Your task to perform on an android device: set an alarm Image 0: 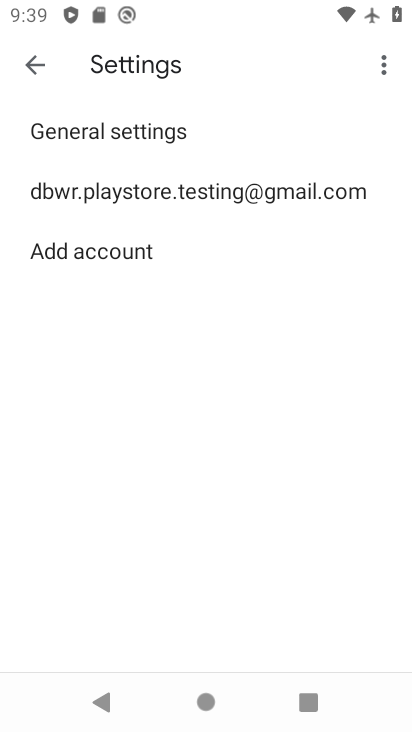
Step 0: press home button
Your task to perform on an android device: set an alarm Image 1: 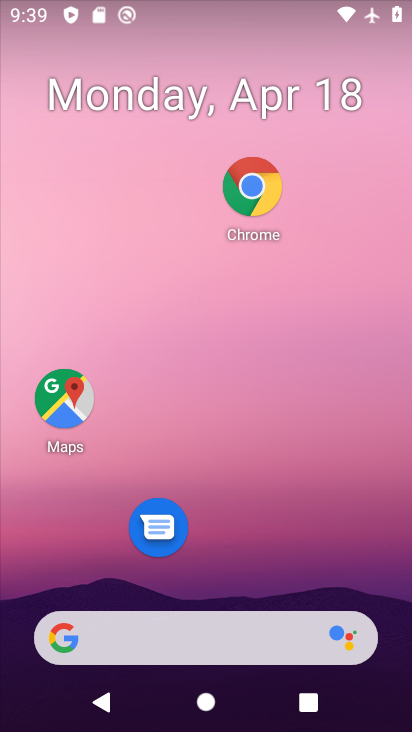
Step 1: drag from (249, 582) to (344, 185)
Your task to perform on an android device: set an alarm Image 2: 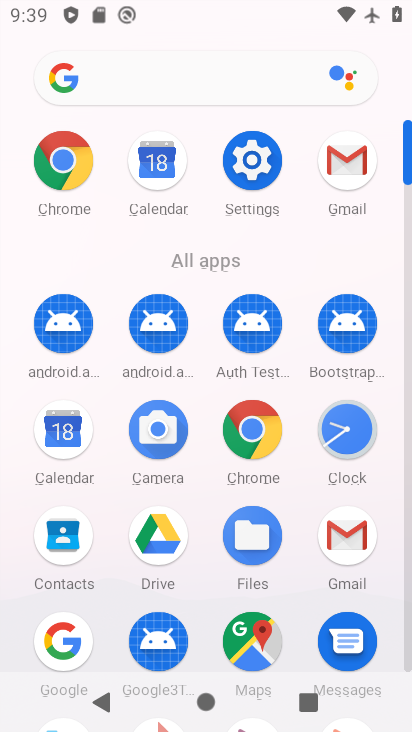
Step 2: click (342, 448)
Your task to perform on an android device: set an alarm Image 3: 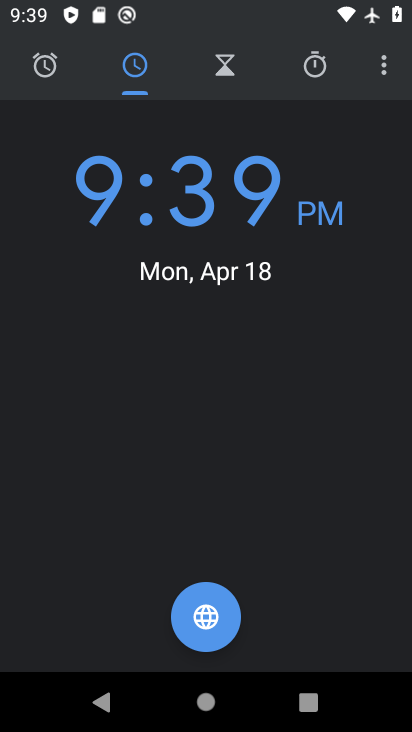
Step 3: click (46, 69)
Your task to perform on an android device: set an alarm Image 4: 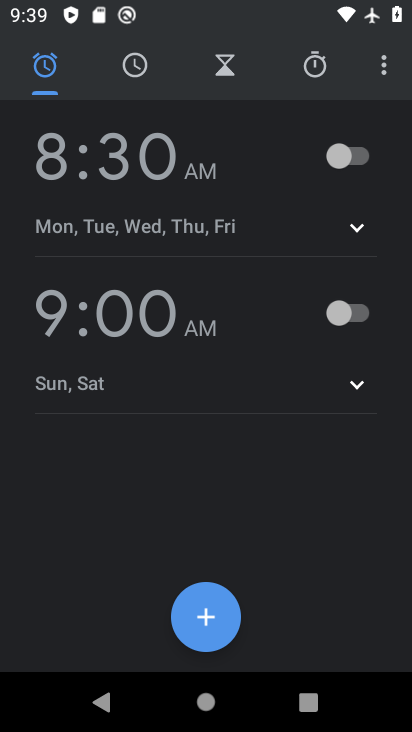
Step 4: click (370, 156)
Your task to perform on an android device: set an alarm Image 5: 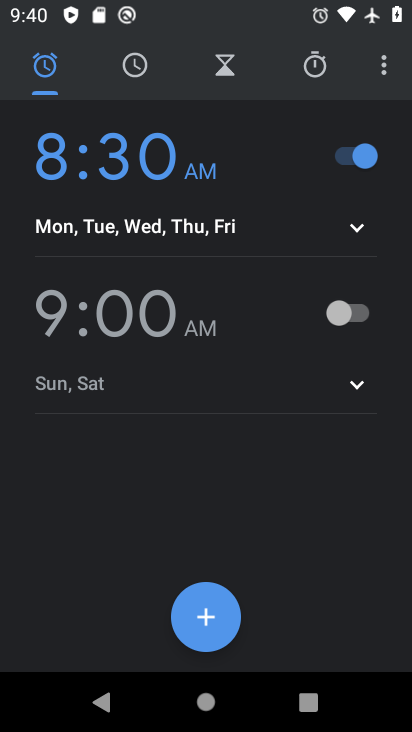
Step 5: task complete